Your task to perform on an android device: toggle sleep mode Image 0: 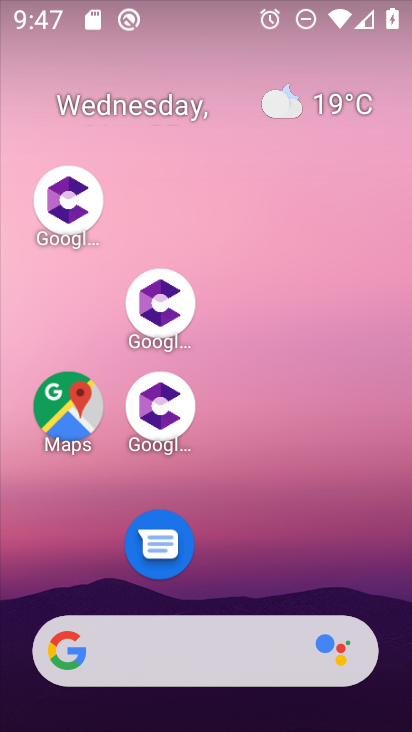
Step 0: drag from (341, 543) to (176, 62)
Your task to perform on an android device: toggle sleep mode Image 1: 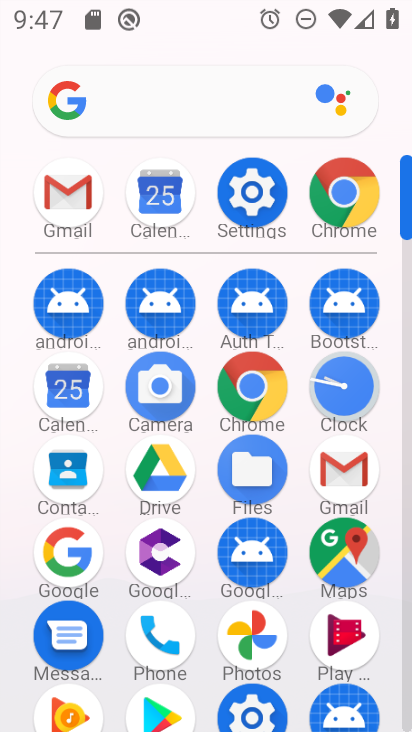
Step 1: click (259, 183)
Your task to perform on an android device: toggle sleep mode Image 2: 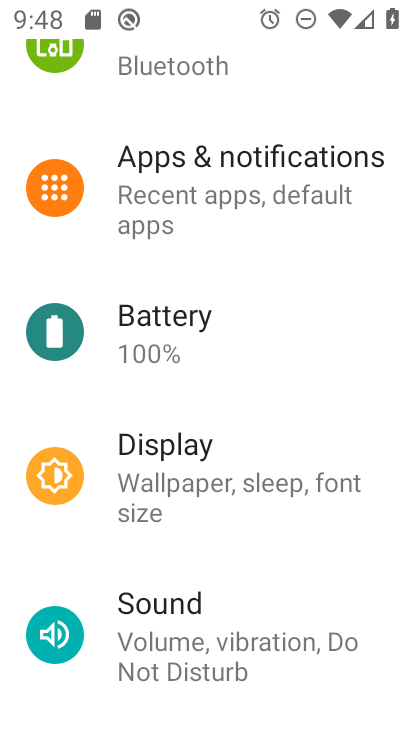
Step 2: click (157, 69)
Your task to perform on an android device: toggle sleep mode Image 3: 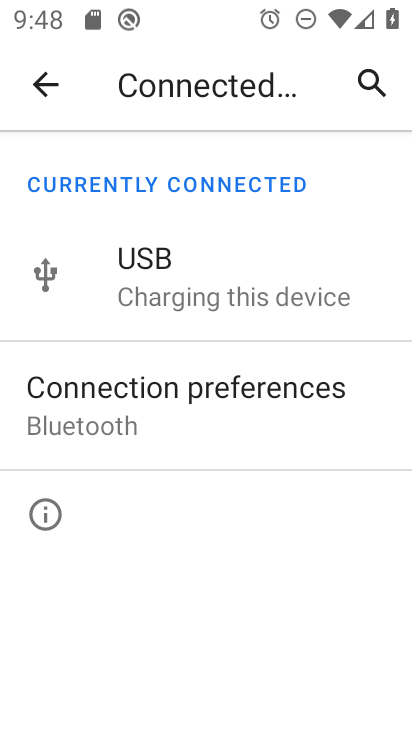
Step 3: click (55, 83)
Your task to perform on an android device: toggle sleep mode Image 4: 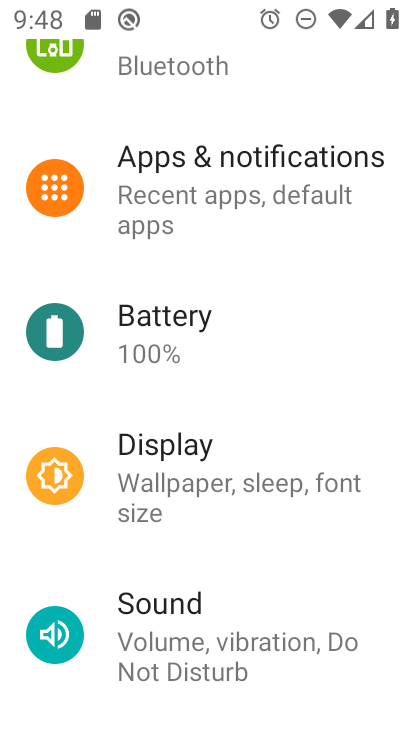
Step 4: task complete